Your task to perform on an android device: Show me popular videos on Youtube Image 0: 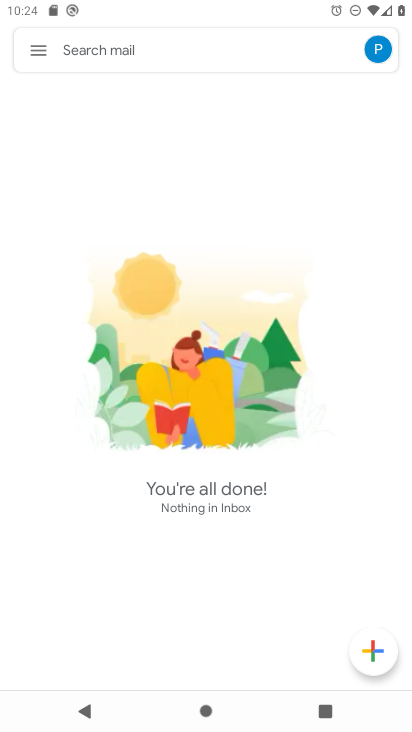
Step 0: press home button
Your task to perform on an android device: Show me popular videos on Youtube Image 1: 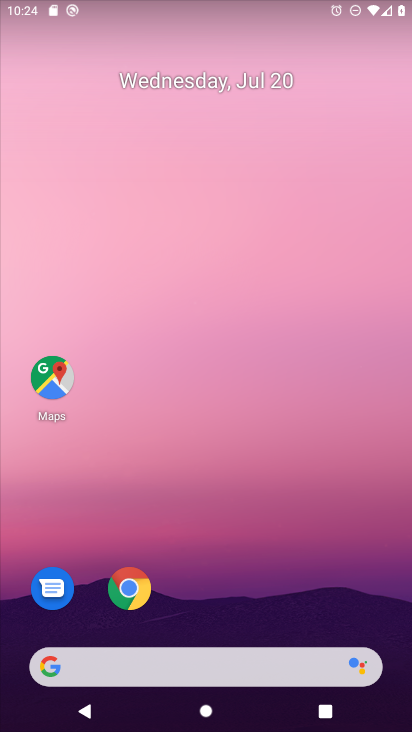
Step 1: click (186, 47)
Your task to perform on an android device: Show me popular videos on Youtube Image 2: 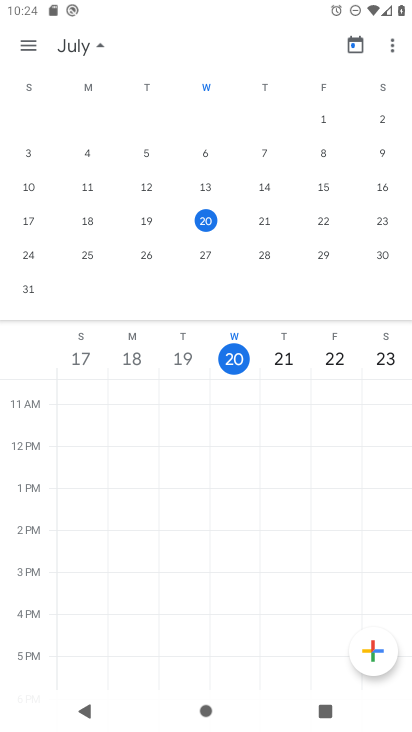
Step 2: press home button
Your task to perform on an android device: Show me popular videos on Youtube Image 3: 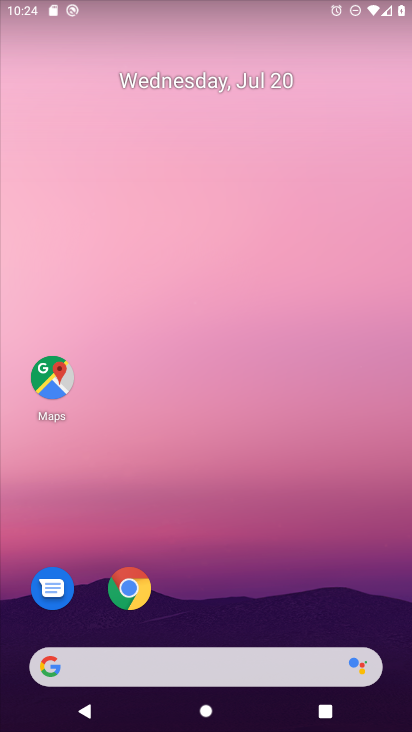
Step 3: drag from (223, 620) to (410, 327)
Your task to perform on an android device: Show me popular videos on Youtube Image 4: 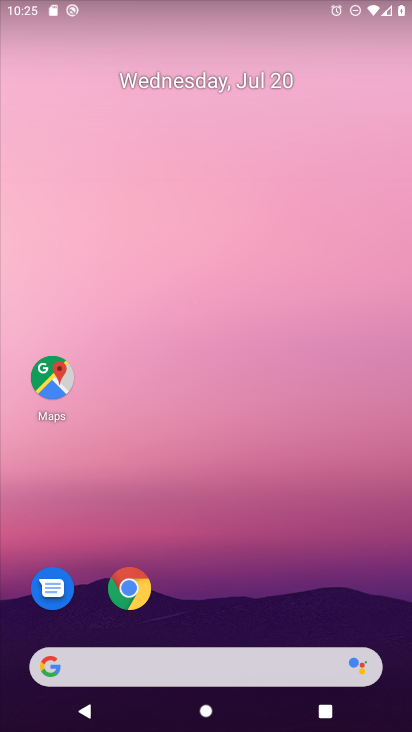
Step 4: drag from (224, 605) to (185, 8)
Your task to perform on an android device: Show me popular videos on Youtube Image 5: 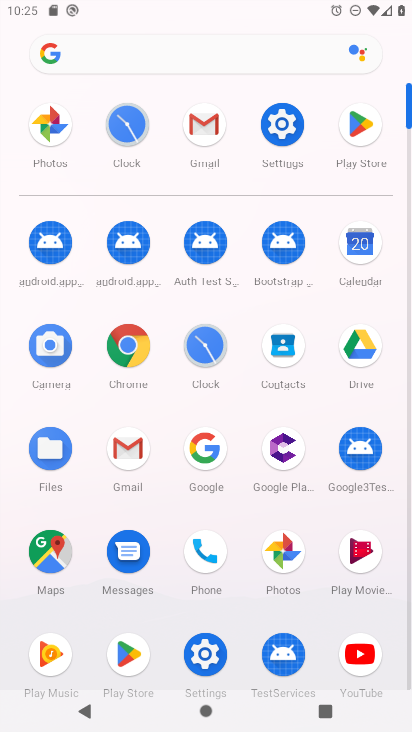
Step 5: click (356, 667)
Your task to perform on an android device: Show me popular videos on Youtube Image 6: 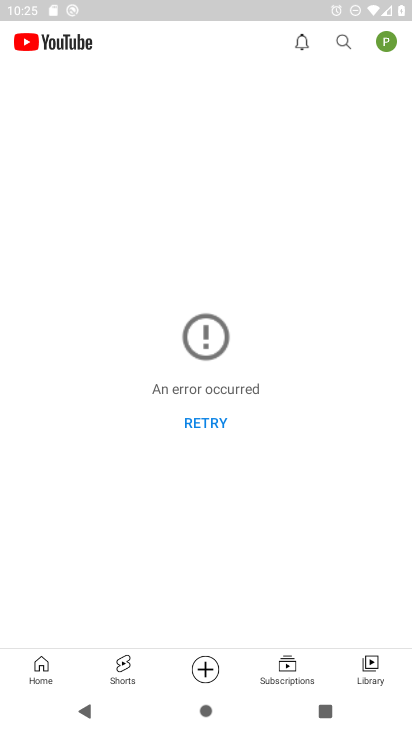
Step 6: task complete